Your task to perform on an android device: Search for Mexican restaurants on Maps Image 0: 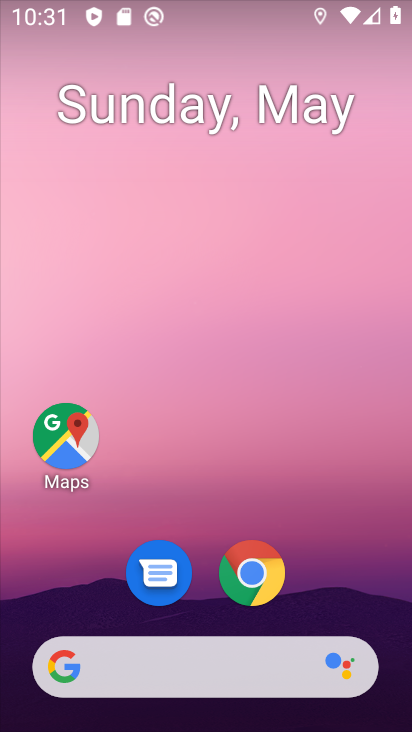
Step 0: click (51, 429)
Your task to perform on an android device: Search for Mexican restaurants on Maps Image 1: 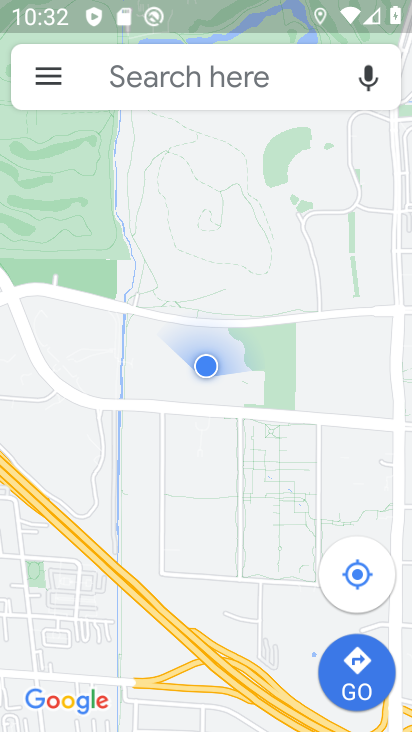
Step 1: click (195, 66)
Your task to perform on an android device: Search for Mexican restaurants on Maps Image 2: 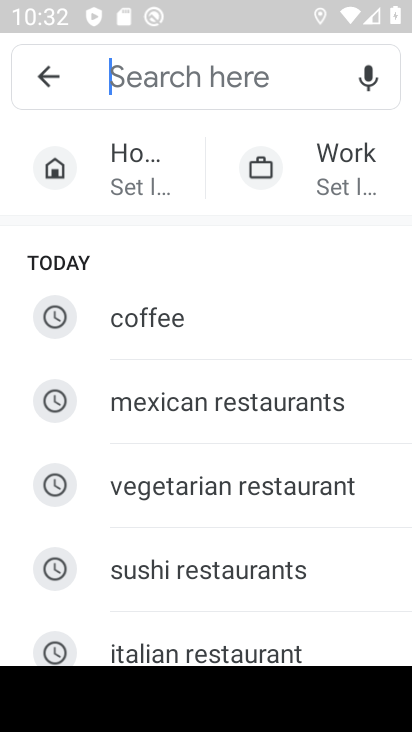
Step 2: type "Mexican restaurants "
Your task to perform on an android device: Search for Mexican restaurants on Maps Image 3: 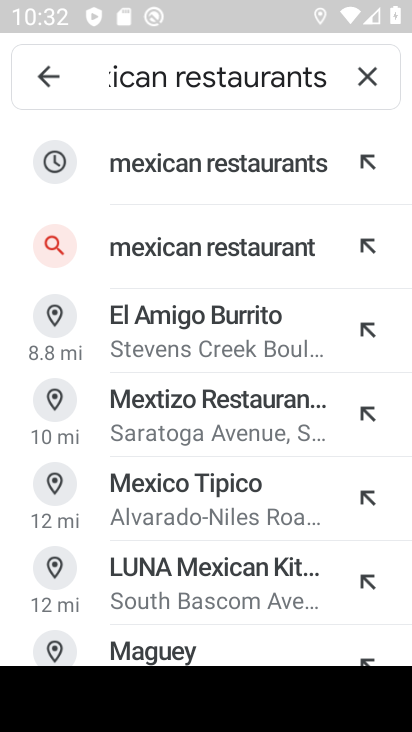
Step 3: click (260, 166)
Your task to perform on an android device: Search for Mexican restaurants on Maps Image 4: 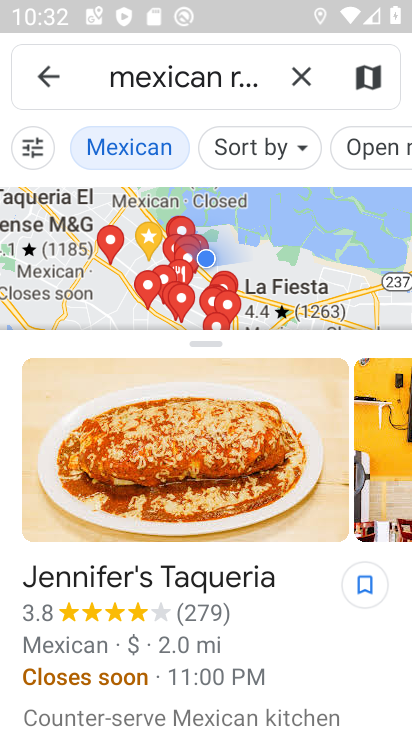
Step 4: task complete